Your task to perform on an android device: What's the weather going to be this weekend? Image 0: 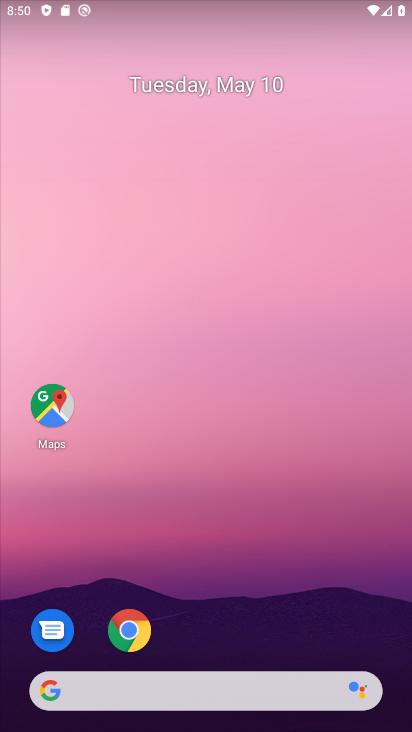
Step 0: drag from (221, 632) to (225, 42)
Your task to perform on an android device: What's the weather going to be this weekend? Image 1: 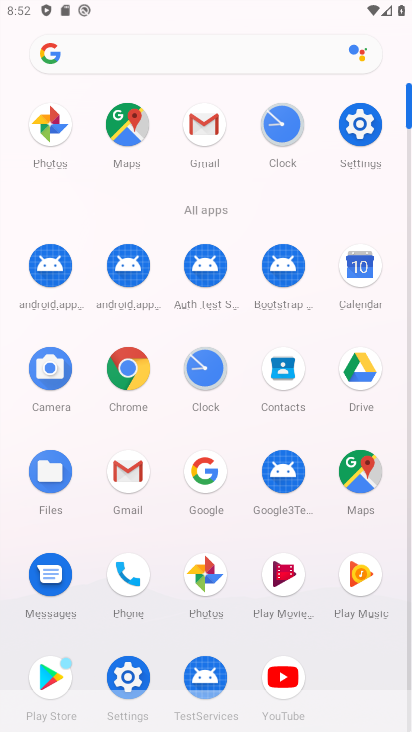
Step 1: click (198, 470)
Your task to perform on an android device: What's the weather going to be this weekend? Image 2: 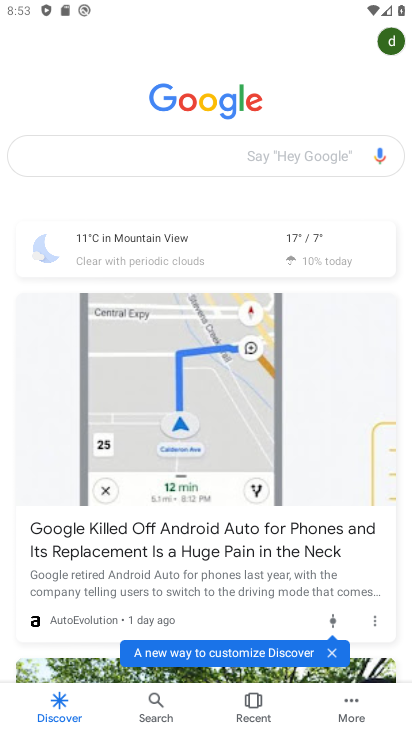
Step 2: click (173, 156)
Your task to perform on an android device: What's the weather going to be this weekend? Image 3: 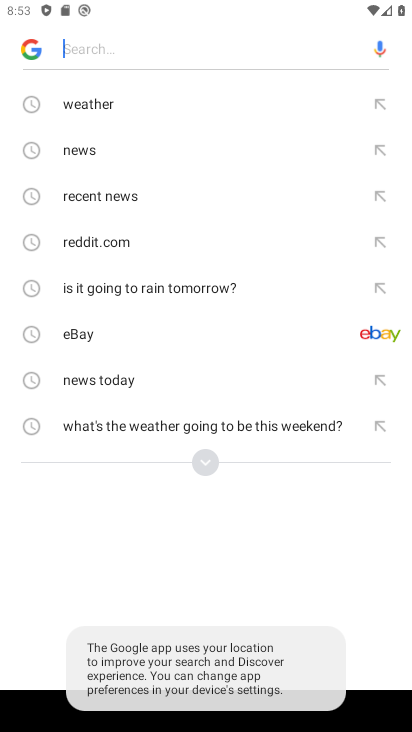
Step 3: click (187, 54)
Your task to perform on an android device: What's the weather going to be this weekend? Image 4: 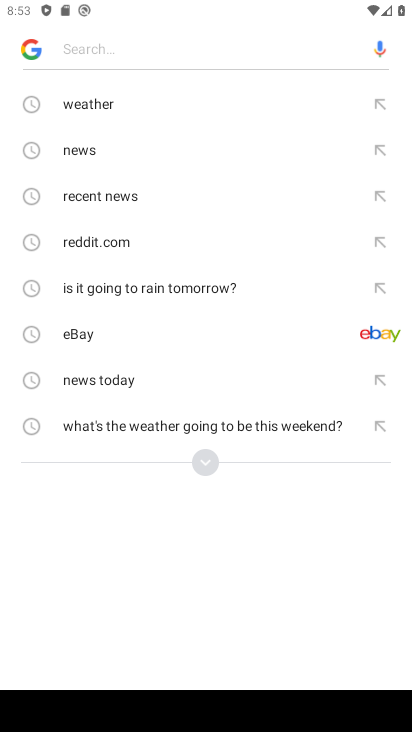
Step 4: type "What's the weather going to be this weekend?"
Your task to perform on an android device: What's the weather going to be this weekend? Image 5: 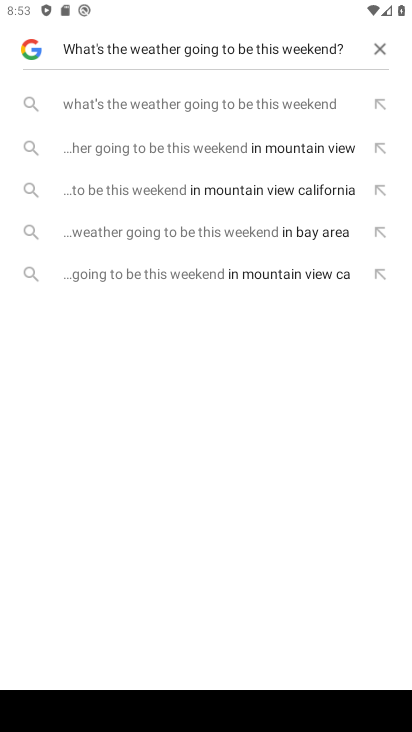
Step 5: click (136, 101)
Your task to perform on an android device: What's the weather going to be this weekend? Image 6: 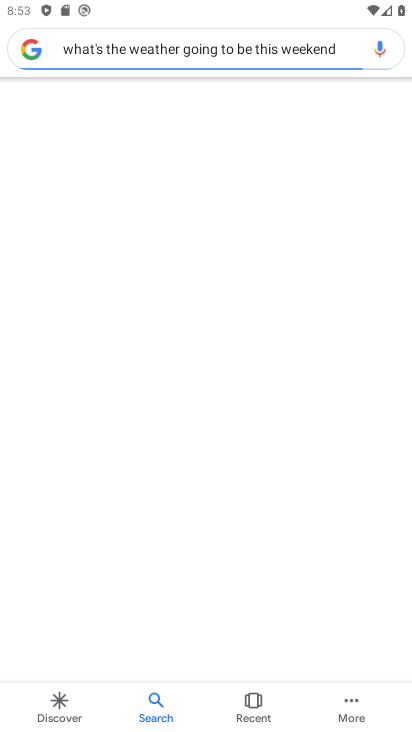
Step 6: click (136, 101)
Your task to perform on an android device: What's the weather going to be this weekend? Image 7: 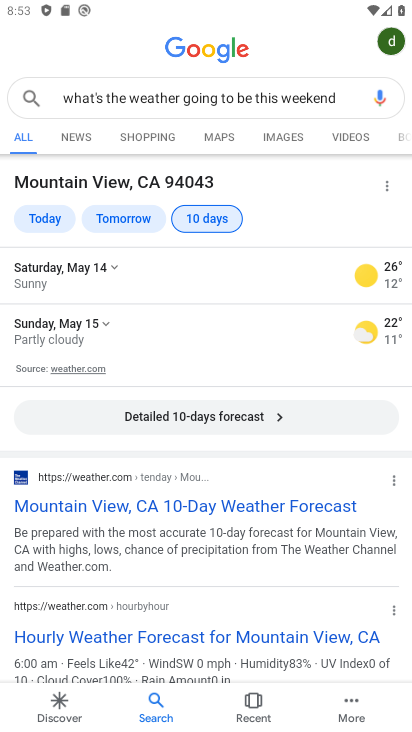
Step 7: task complete